Your task to perform on an android device: When is my next meeting? Image 0: 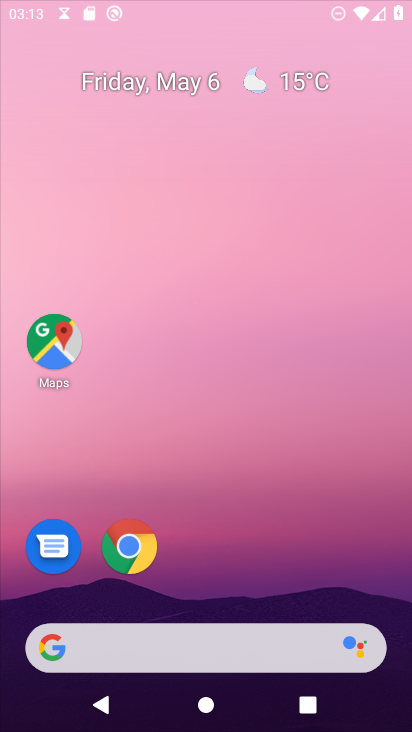
Step 0: drag from (268, 374) to (267, 79)
Your task to perform on an android device: When is my next meeting? Image 1: 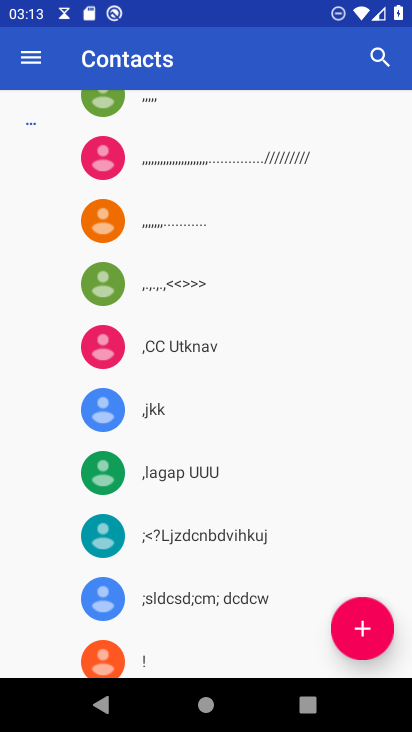
Step 1: press home button
Your task to perform on an android device: When is my next meeting? Image 2: 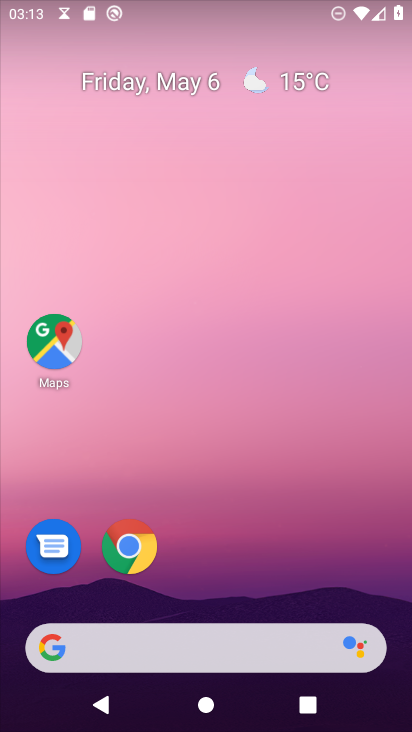
Step 2: click (154, 82)
Your task to perform on an android device: When is my next meeting? Image 3: 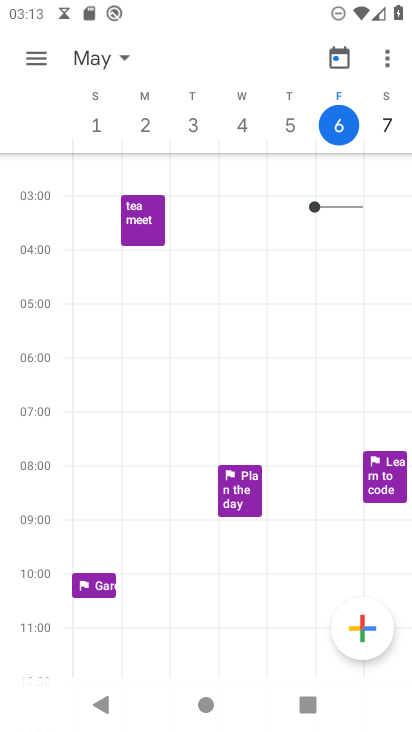
Step 3: click (45, 65)
Your task to perform on an android device: When is my next meeting? Image 4: 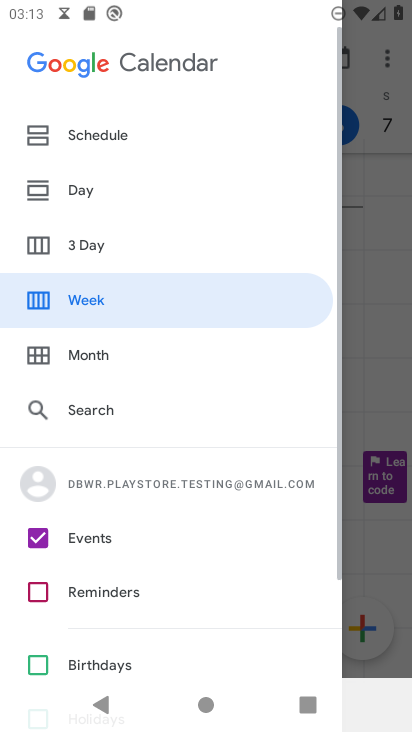
Step 4: click (97, 146)
Your task to perform on an android device: When is my next meeting? Image 5: 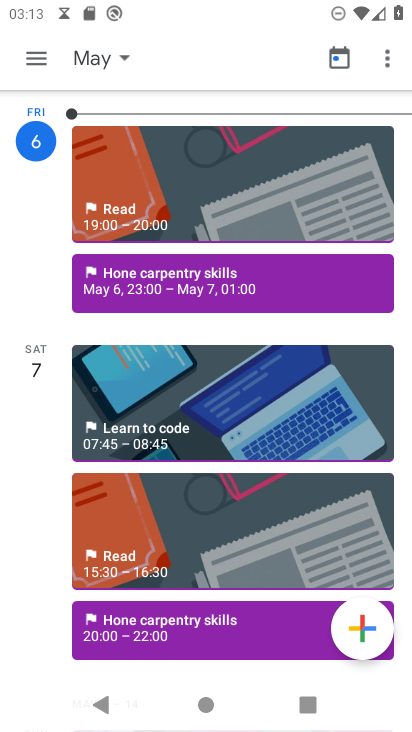
Step 5: task complete